Your task to perform on an android device: Go to privacy settings Image 0: 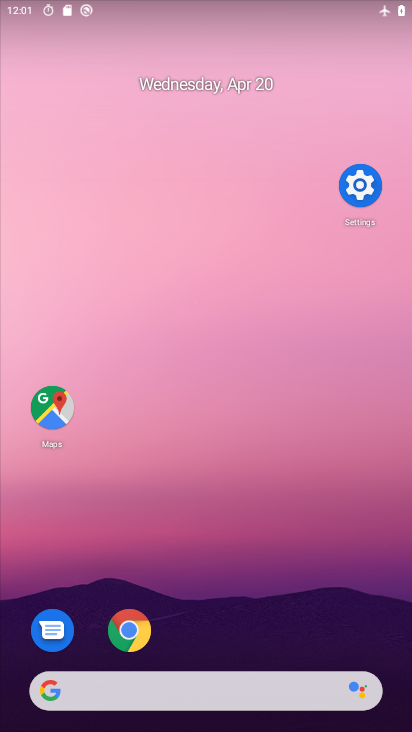
Step 0: click (289, 596)
Your task to perform on an android device: Go to privacy settings Image 1: 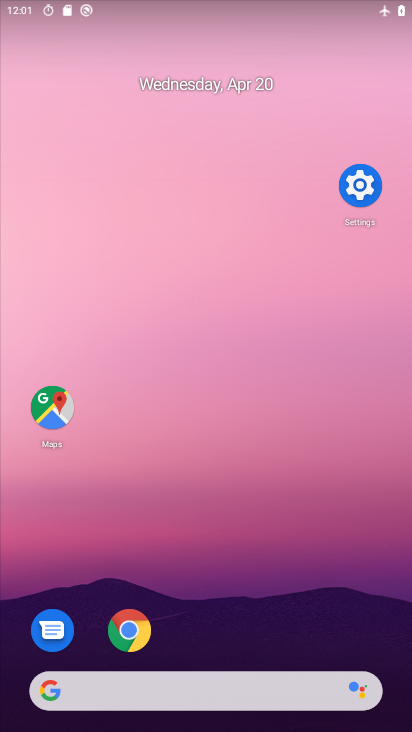
Step 1: drag from (242, 592) to (212, 337)
Your task to perform on an android device: Go to privacy settings Image 2: 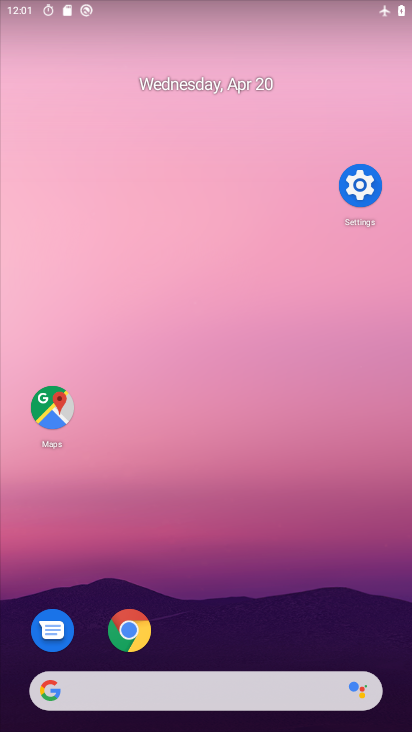
Step 2: drag from (258, 493) to (295, 196)
Your task to perform on an android device: Go to privacy settings Image 3: 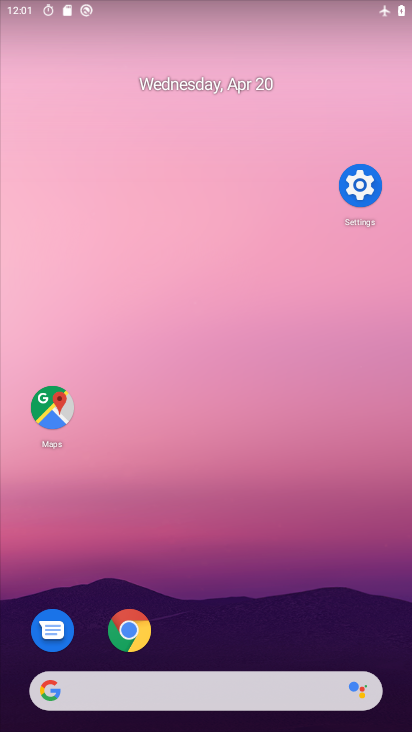
Step 3: drag from (250, 461) to (306, 6)
Your task to perform on an android device: Go to privacy settings Image 4: 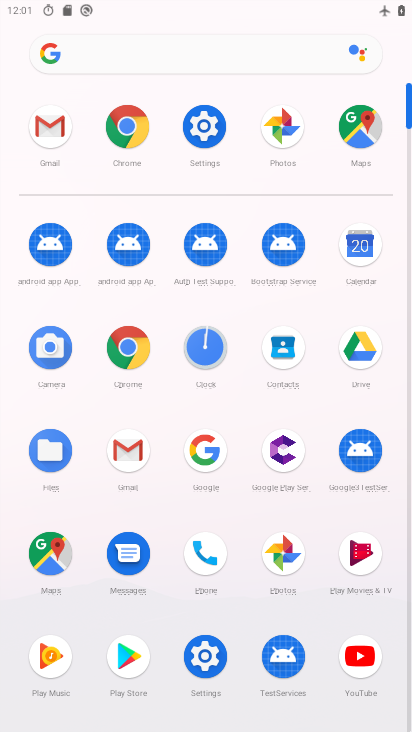
Step 4: click (201, 133)
Your task to perform on an android device: Go to privacy settings Image 5: 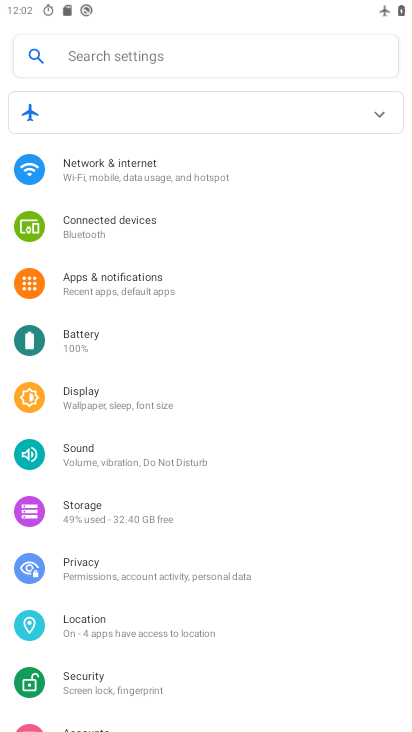
Step 5: click (177, 567)
Your task to perform on an android device: Go to privacy settings Image 6: 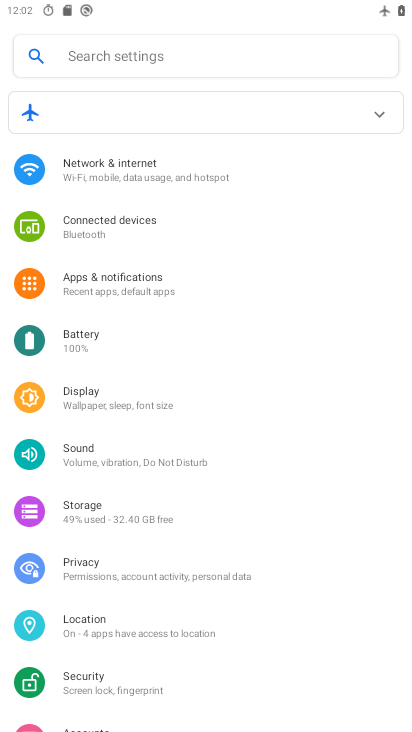
Step 6: click (164, 305)
Your task to perform on an android device: Go to privacy settings Image 7: 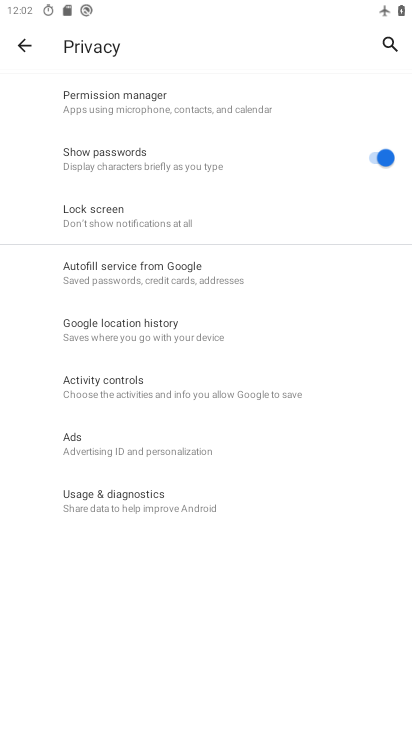
Step 7: task complete